Your task to perform on an android device: Open sound settings Image 0: 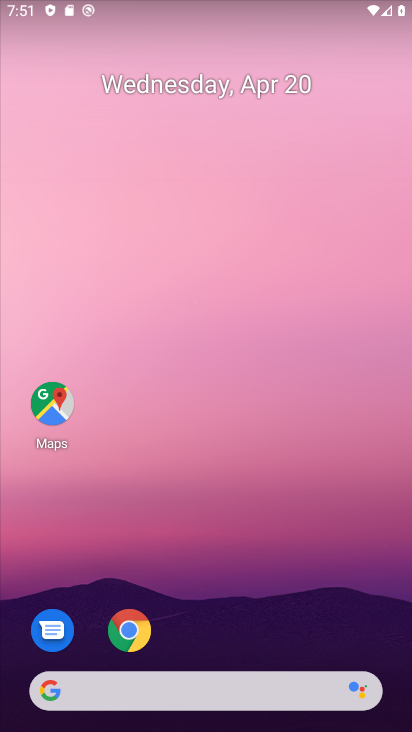
Step 0: drag from (280, 614) to (359, 5)
Your task to perform on an android device: Open sound settings Image 1: 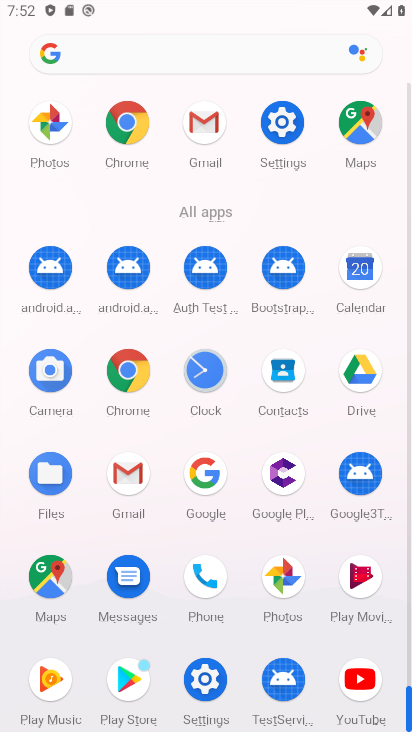
Step 1: click (285, 135)
Your task to perform on an android device: Open sound settings Image 2: 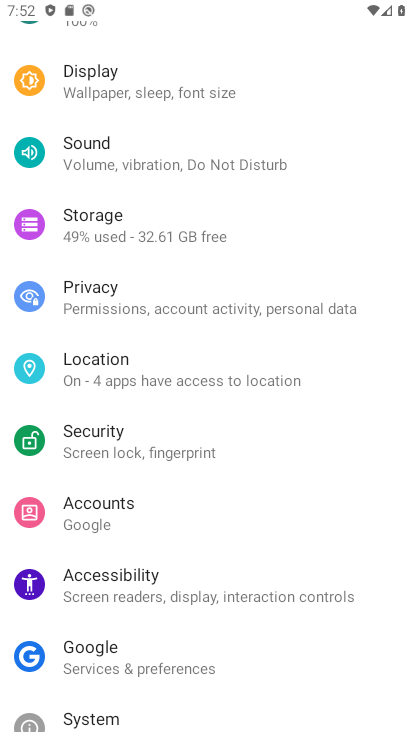
Step 2: click (155, 163)
Your task to perform on an android device: Open sound settings Image 3: 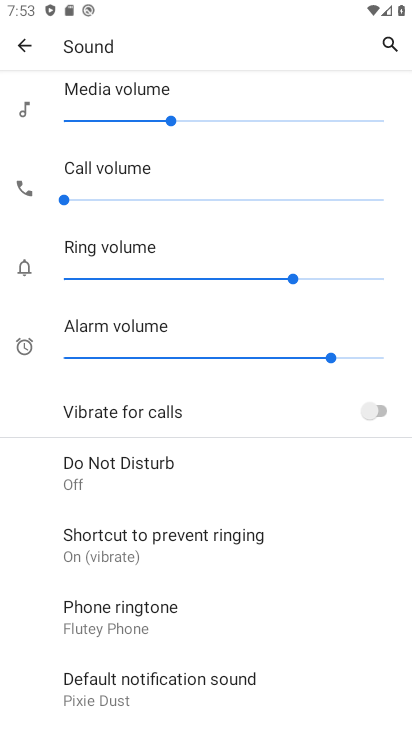
Step 3: task complete